Your task to perform on an android device: turn pop-ups on in chrome Image 0: 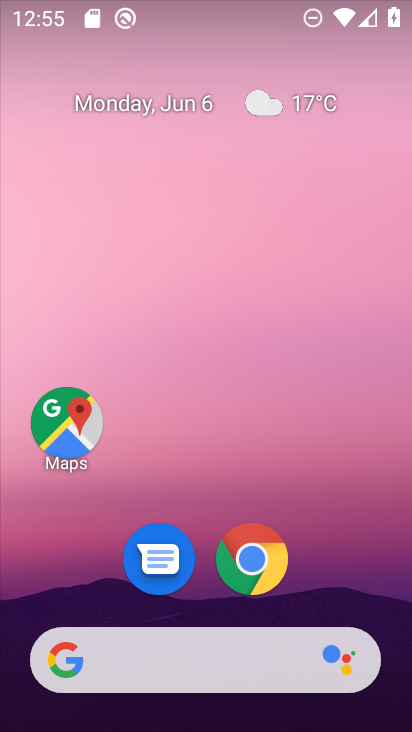
Step 0: drag from (245, 370) to (276, 139)
Your task to perform on an android device: turn pop-ups on in chrome Image 1: 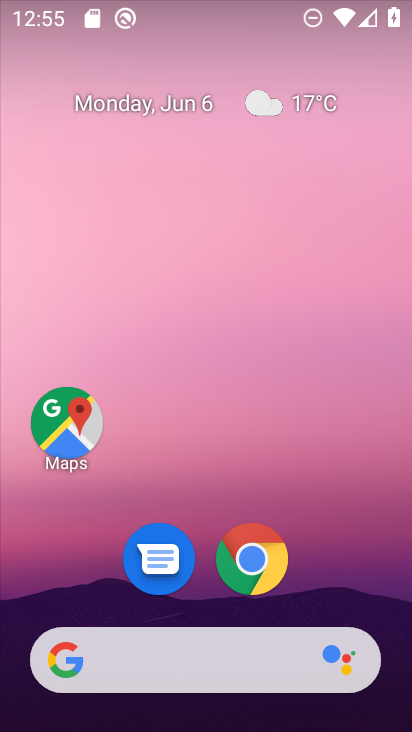
Step 1: click (263, 597)
Your task to perform on an android device: turn pop-ups on in chrome Image 2: 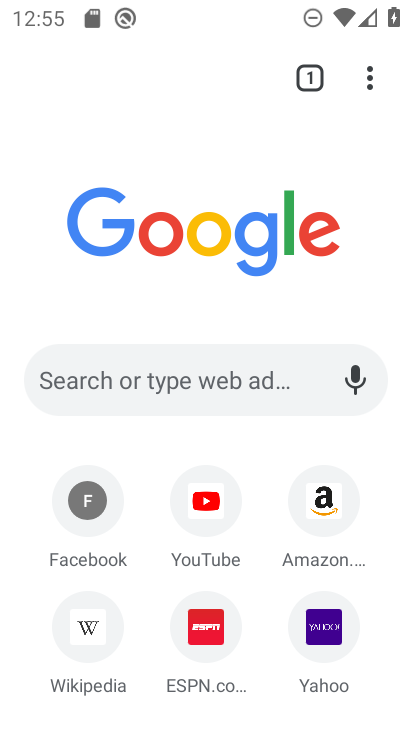
Step 2: click (387, 78)
Your task to perform on an android device: turn pop-ups on in chrome Image 3: 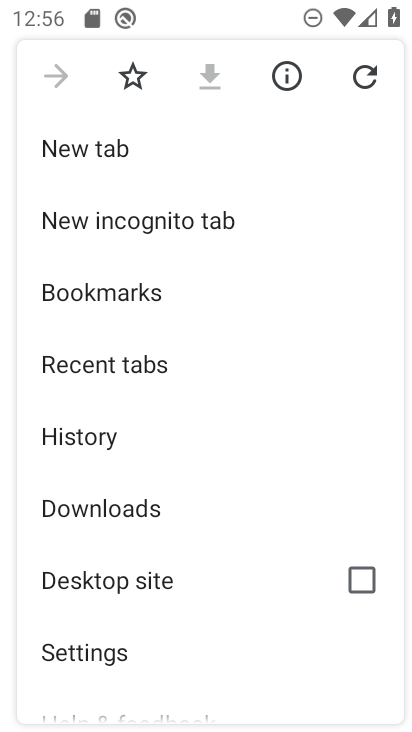
Step 3: click (128, 644)
Your task to perform on an android device: turn pop-ups on in chrome Image 4: 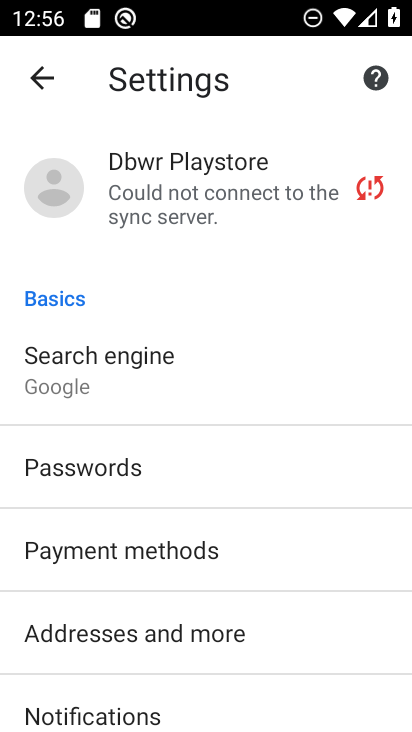
Step 4: drag from (146, 577) to (182, 149)
Your task to perform on an android device: turn pop-ups on in chrome Image 5: 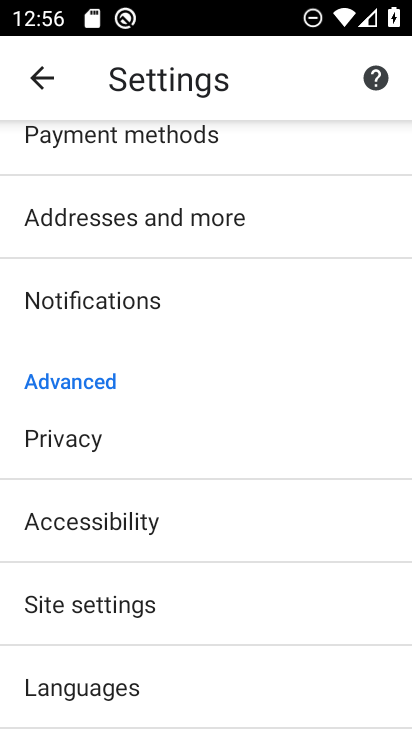
Step 5: click (114, 608)
Your task to perform on an android device: turn pop-ups on in chrome Image 6: 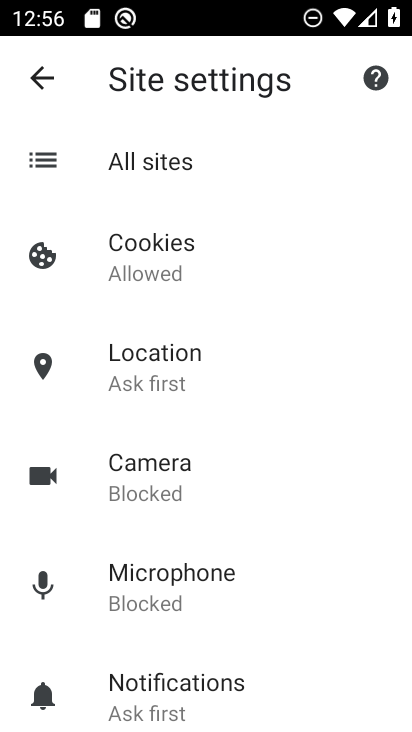
Step 6: drag from (180, 585) to (221, 266)
Your task to perform on an android device: turn pop-ups on in chrome Image 7: 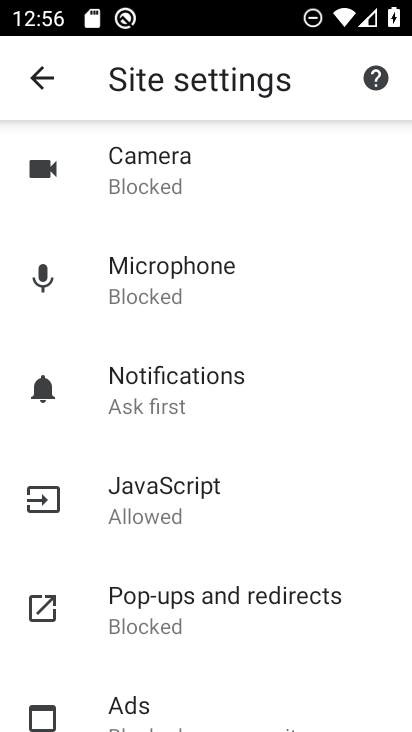
Step 7: click (195, 625)
Your task to perform on an android device: turn pop-ups on in chrome Image 8: 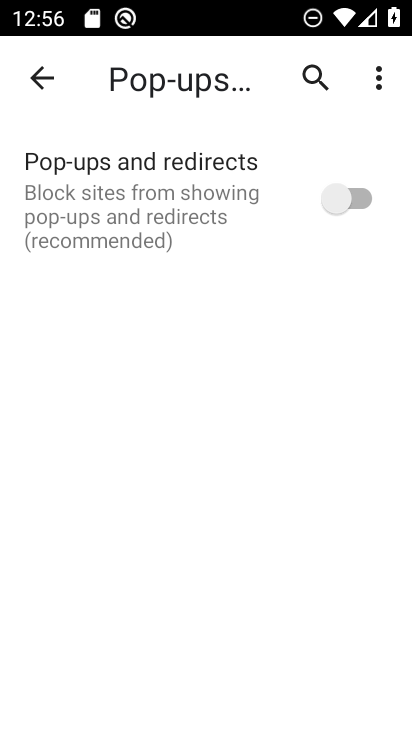
Step 8: click (278, 196)
Your task to perform on an android device: turn pop-ups on in chrome Image 9: 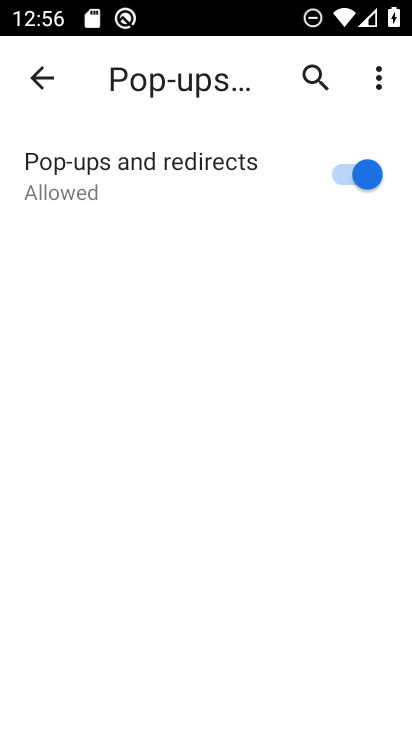
Step 9: task complete